Your task to perform on an android device: check android version Image 0: 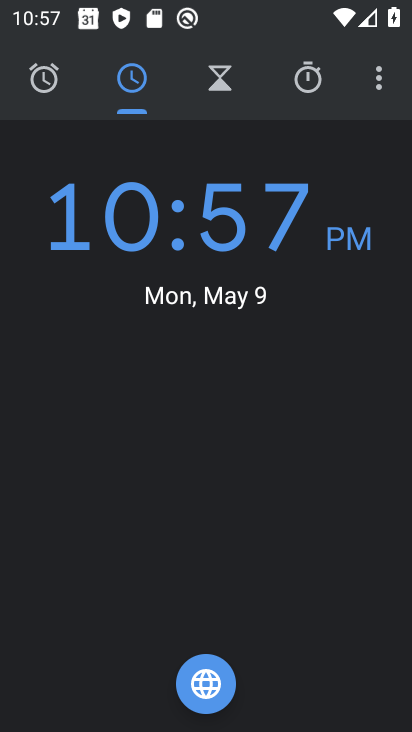
Step 0: press home button
Your task to perform on an android device: check android version Image 1: 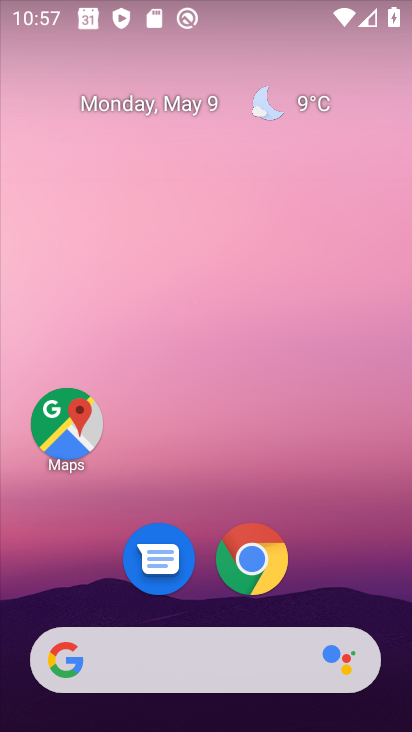
Step 1: drag from (332, 453) to (259, 22)
Your task to perform on an android device: check android version Image 2: 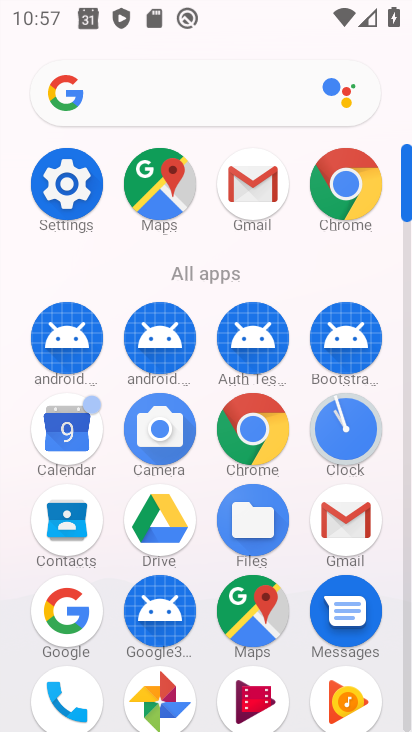
Step 2: click (78, 184)
Your task to perform on an android device: check android version Image 3: 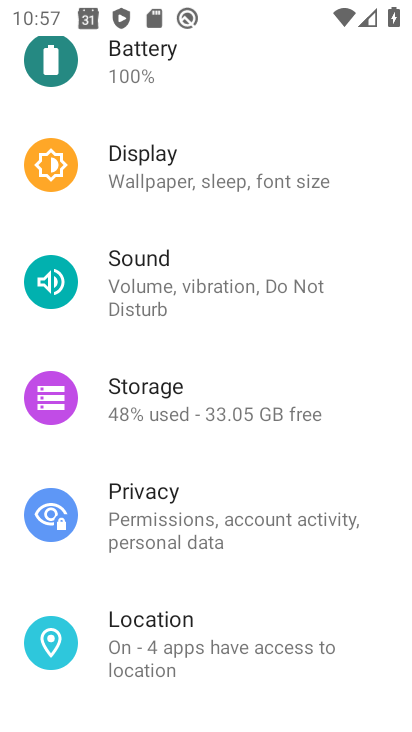
Step 3: drag from (293, 674) to (282, 214)
Your task to perform on an android device: check android version Image 4: 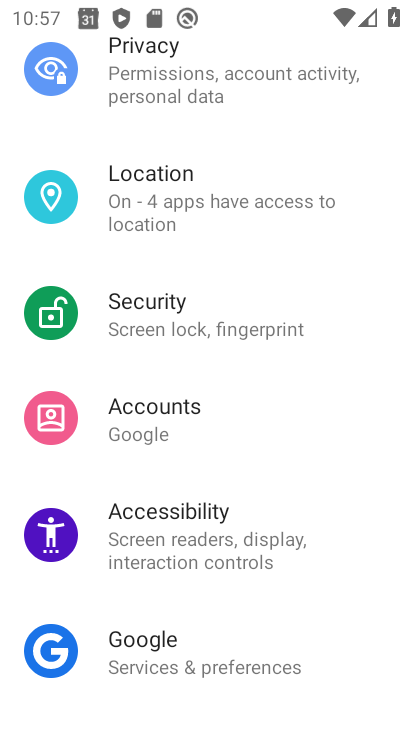
Step 4: drag from (275, 487) to (319, 138)
Your task to perform on an android device: check android version Image 5: 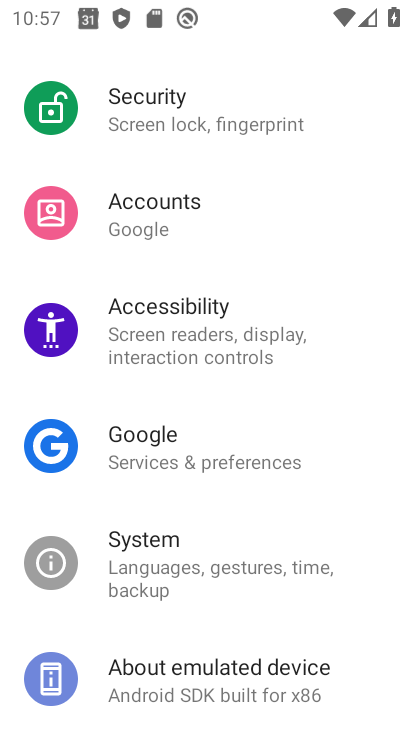
Step 5: click (214, 569)
Your task to perform on an android device: check android version Image 6: 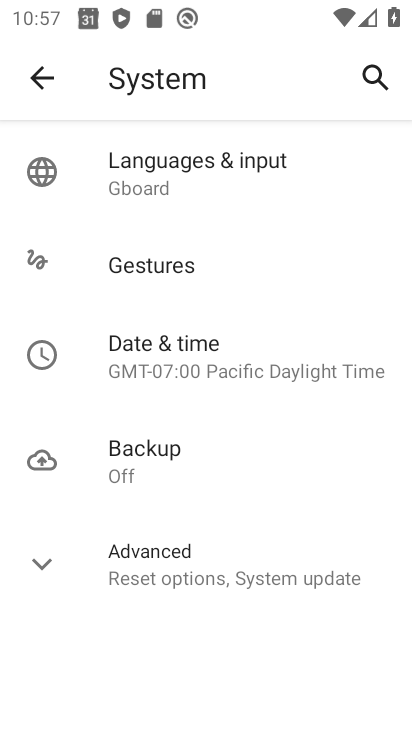
Step 6: click (45, 81)
Your task to perform on an android device: check android version Image 7: 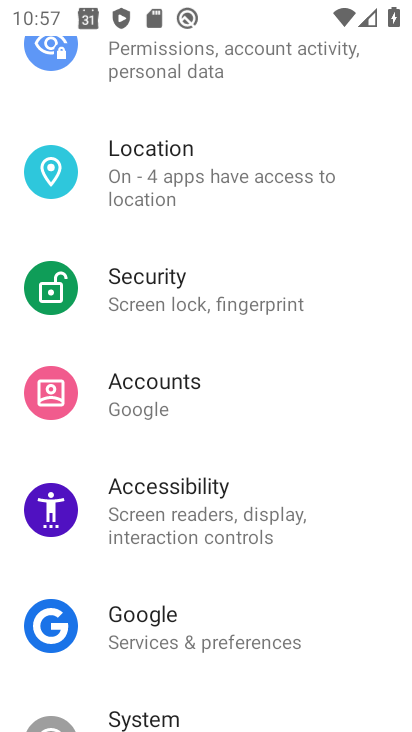
Step 7: drag from (235, 705) to (209, 222)
Your task to perform on an android device: check android version Image 8: 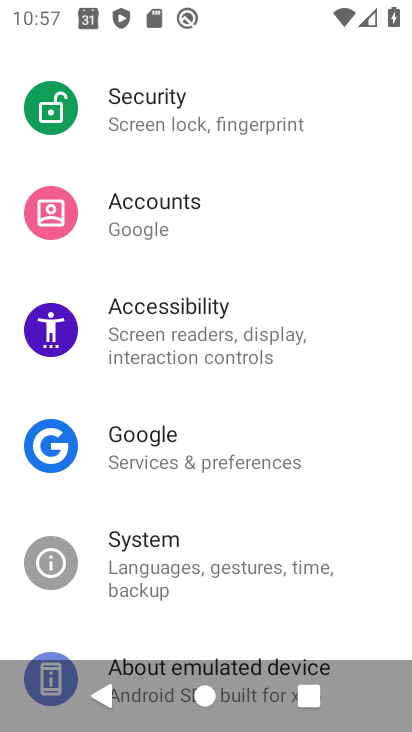
Step 8: drag from (225, 632) to (222, 251)
Your task to perform on an android device: check android version Image 9: 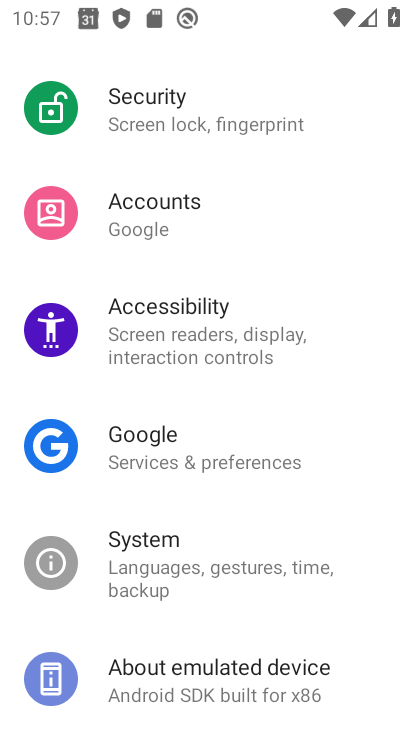
Step 9: click (204, 677)
Your task to perform on an android device: check android version Image 10: 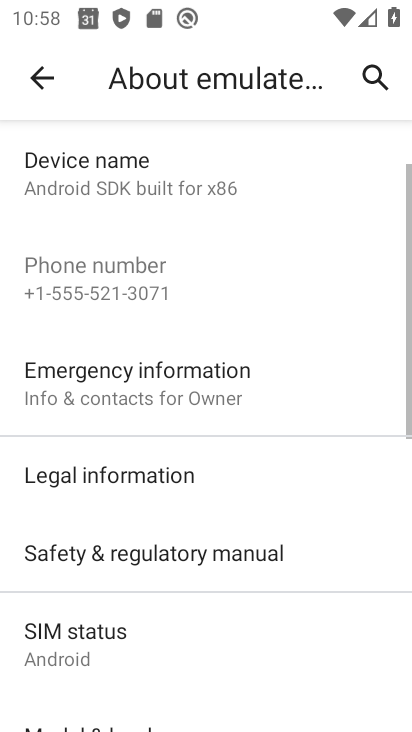
Step 10: drag from (131, 624) to (133, 210)
Your task to perform on an android device: check android version Image 11: 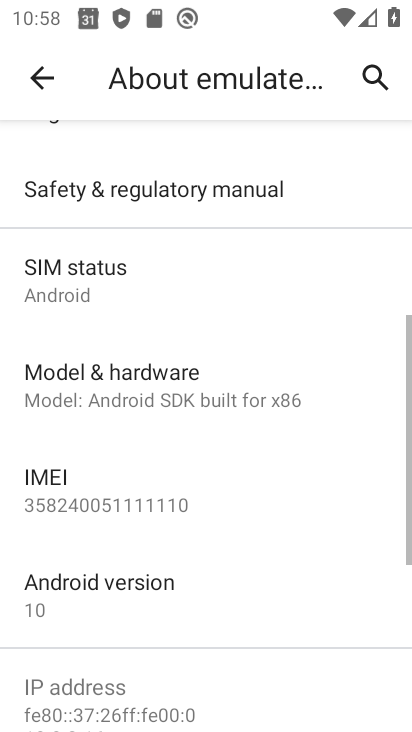
Step 11: click (107, 584)
Your task to perform on an android device: check android version Image 12: 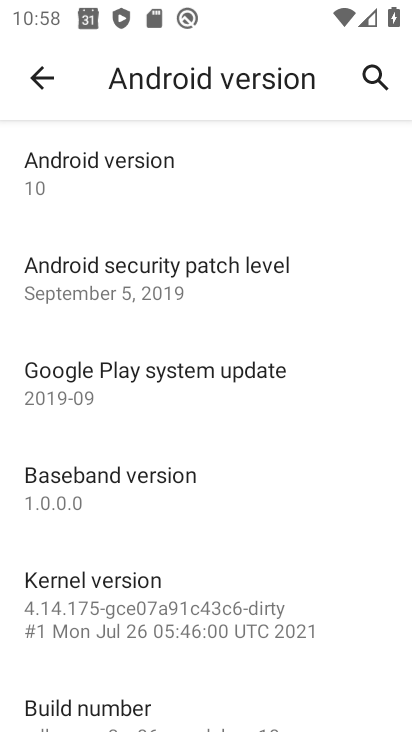
Step 12: click (83, 183)
Your task to perform on an android device: check android version Image 13: 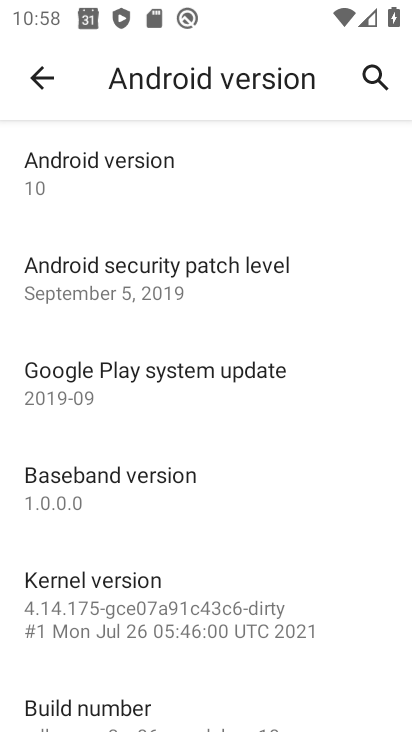
Step 13: task complete